Your task to perform on an android device: check data usage Image 0: 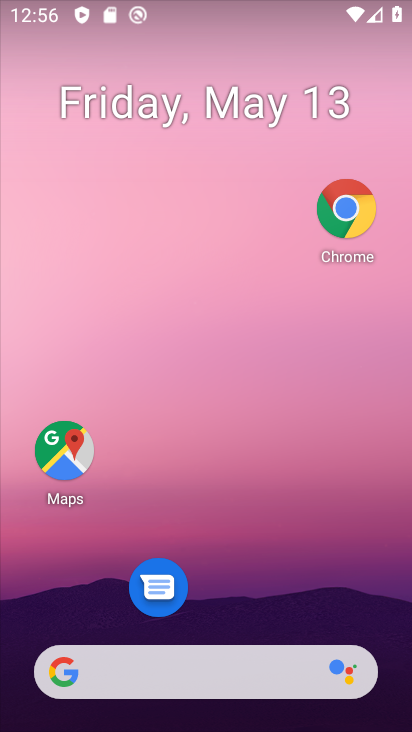
Step 0: drag from (242, 535) to (322, 78)
Your task to perform on an android device: check data usage Image 1: 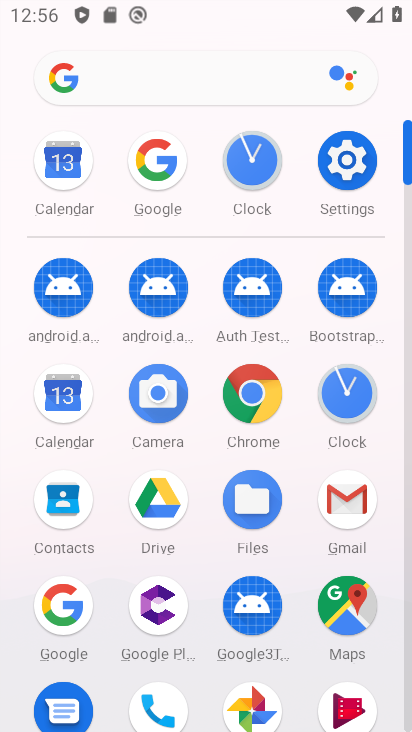
Step 1: click (345, 167)
Your task to perform on an android device: check data usage Image 2: 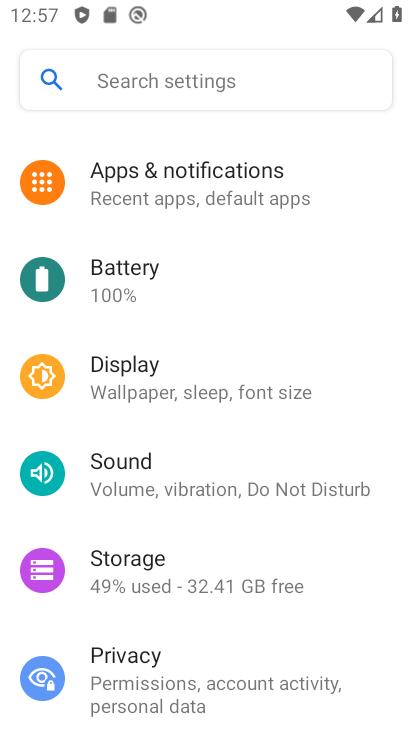
Step 2: drag from (183, 657) to (297, 126)
Your task to perform on an android device: check data usage Image 3: 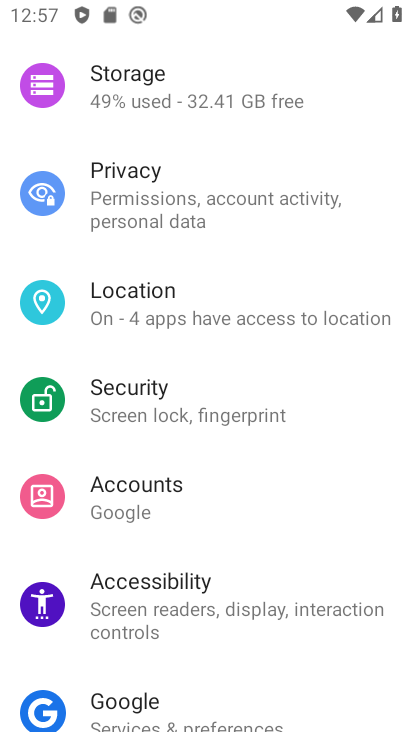
Step 3: drag from (219, 161) to (219, 680)
Your task to perform on an android device: check data usage Image 4: 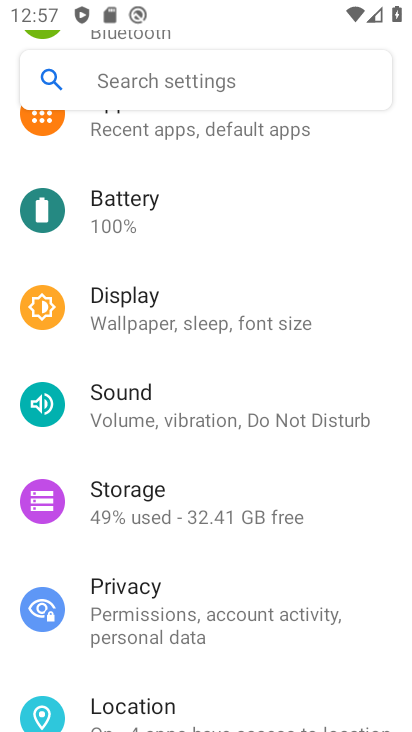
Step 4: drag from (230, 250) to (235, 718)
Your task to perform on an android device: check data usage Image 5: 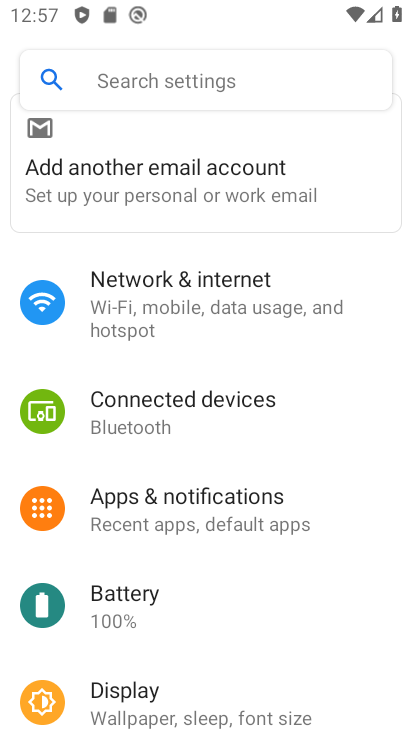
Step 5: click (169, 302)
Your task to perform on an android device: check data usage Image 6: 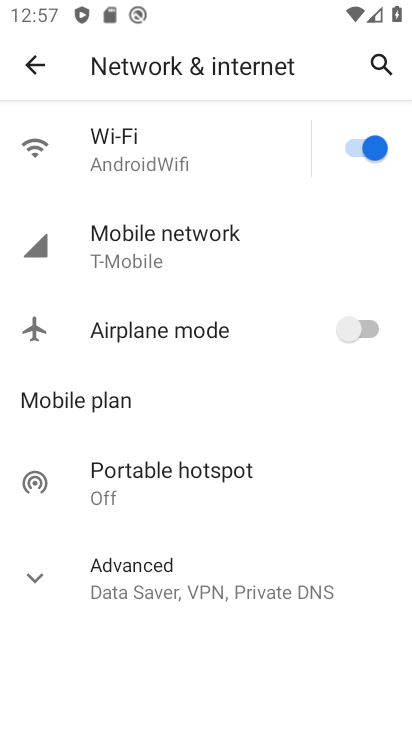
Step 6: click (190, 228)
Your task to perform on an android device: check data usage Image 7: 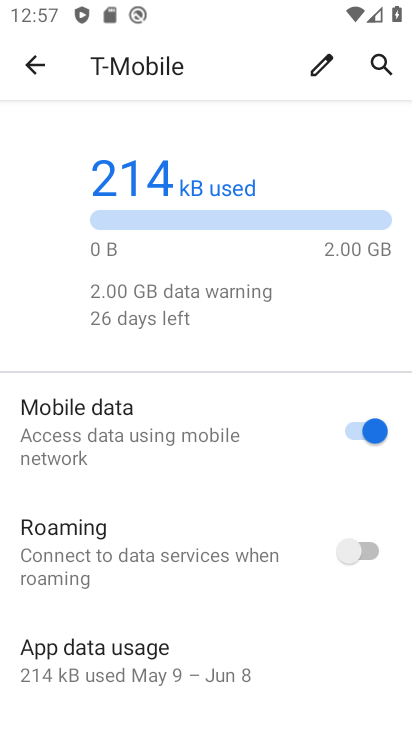
Step 7: click (214, 671)
Your task to perform on an android device: check data usage Image 8: 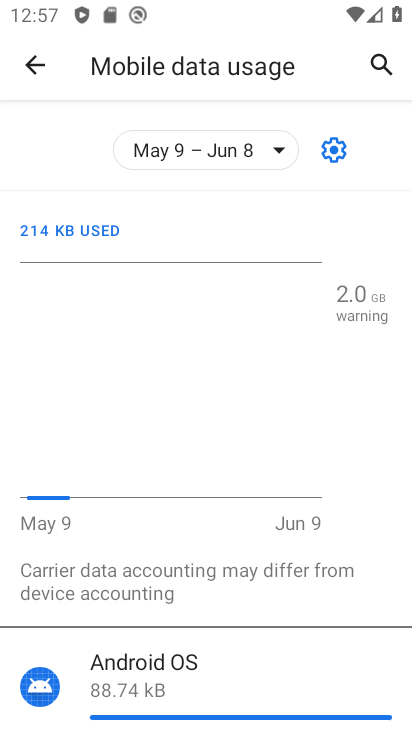
Step 8: task complete